Your task to perform on an android device: What's on my calendar today? Image 0: 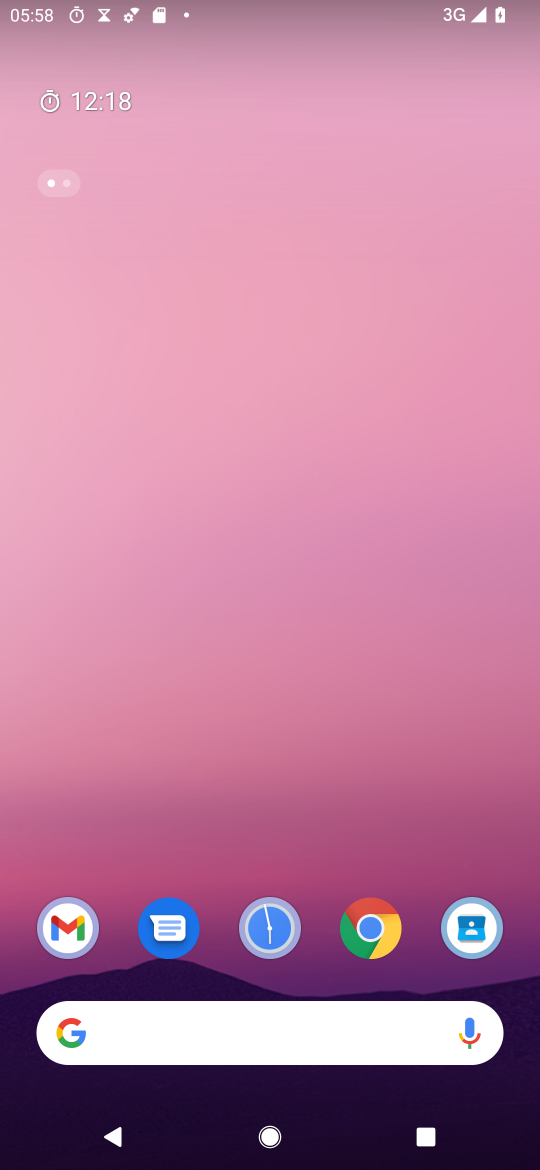
Step 0: drag from (282, 979) to (290, 260)
Your task to perform on an android device: What's on my calendar today? Image 1: 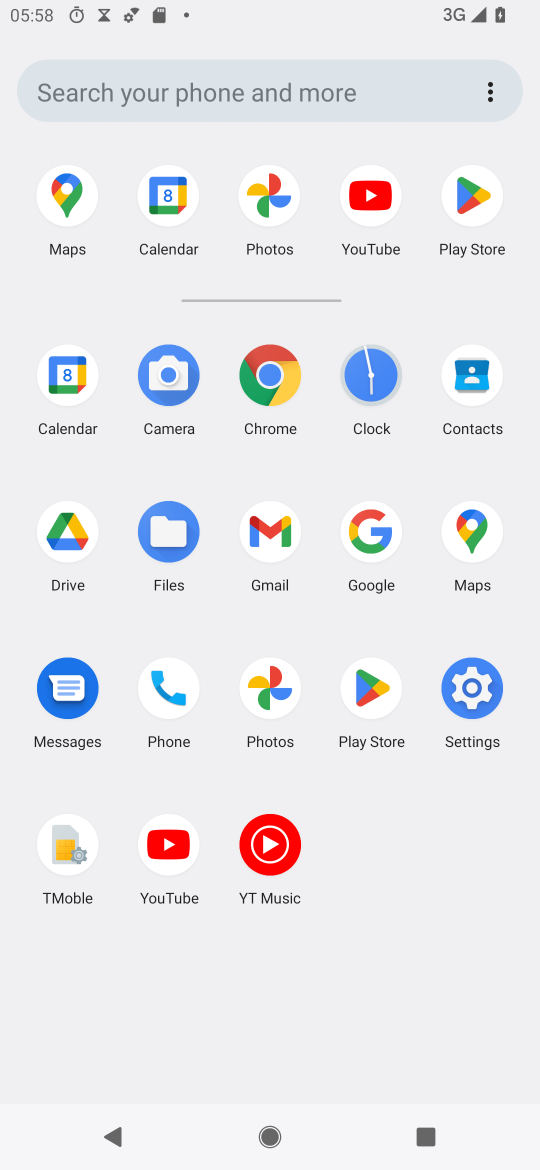
Step 1: click (41, 378)
Your task to perform on an android device: What's on my calendar today? Image 2: 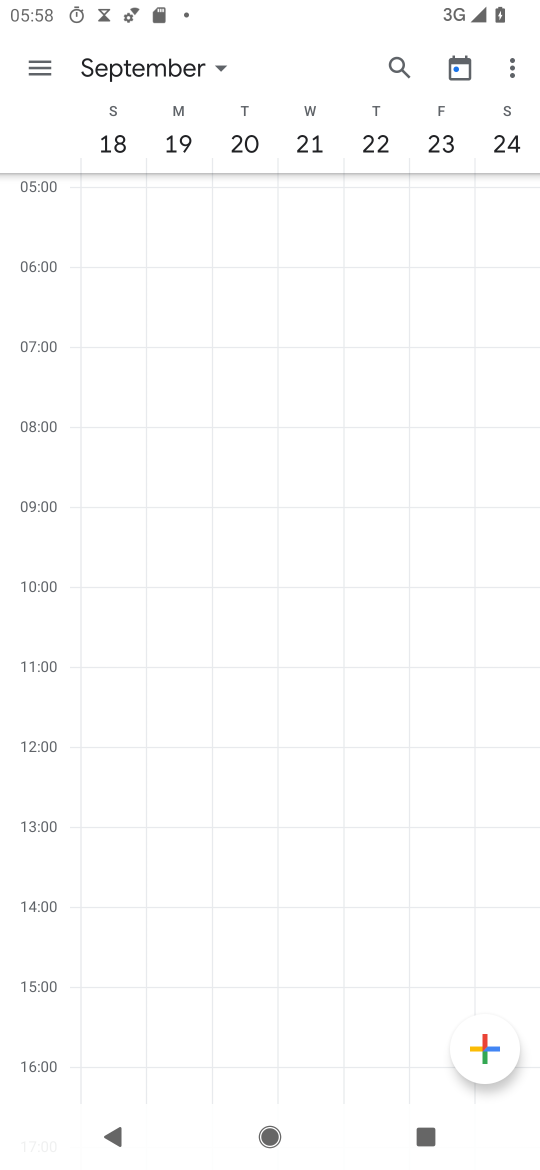
Step 2: click (110, 71)
Your task to perform on an android device: What's on my calendar today? Image 3: 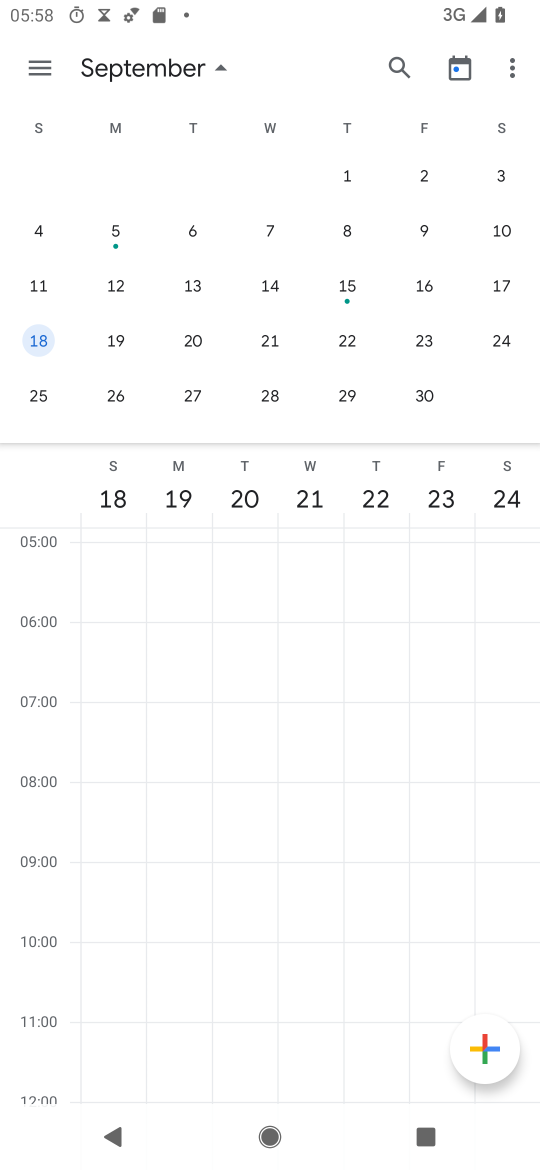
Step 3: drag from (95, 295) to (528, 352)
Your task to perform on an android device: What's on my calendar today? Image 4: 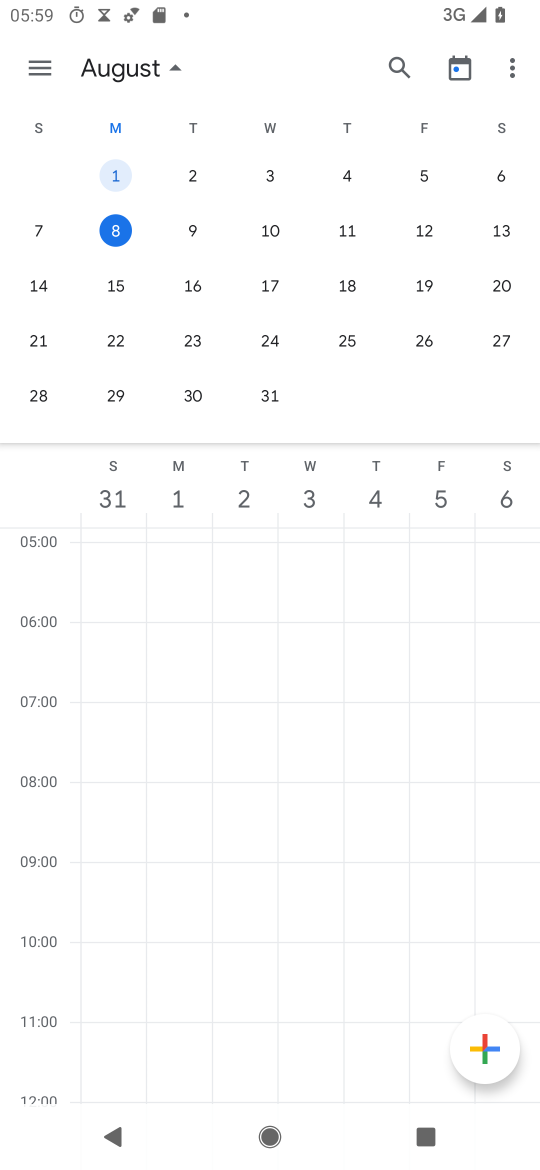
Step 4: click (36, 65)
Your task to perform on an android device: What's on my calendar today? Image 5: 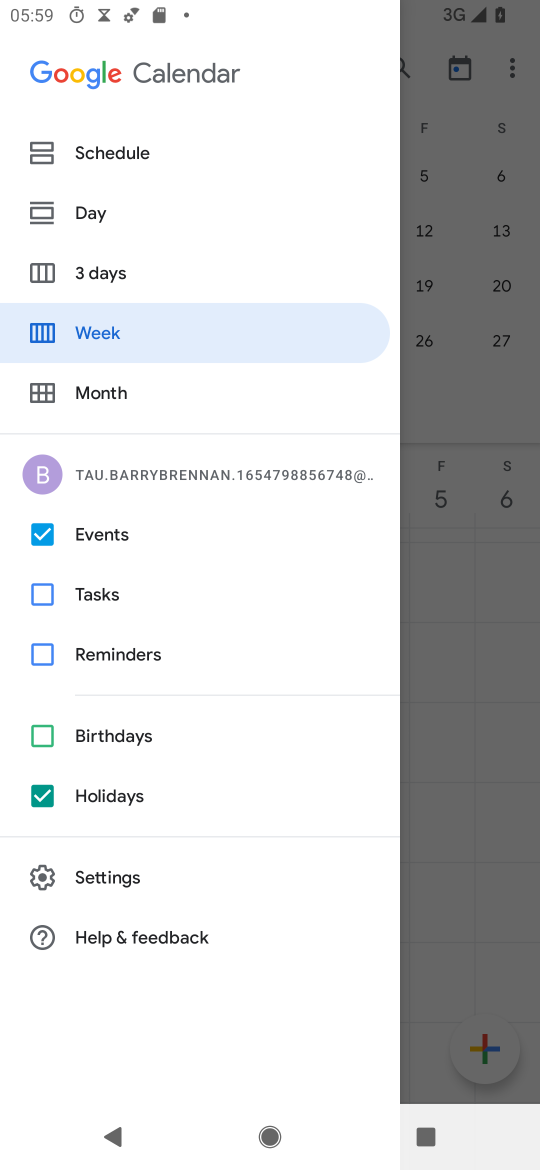
Step 5: click (86, 598)
Your task to perform on an android device: What's on my calendar today? Image 6: 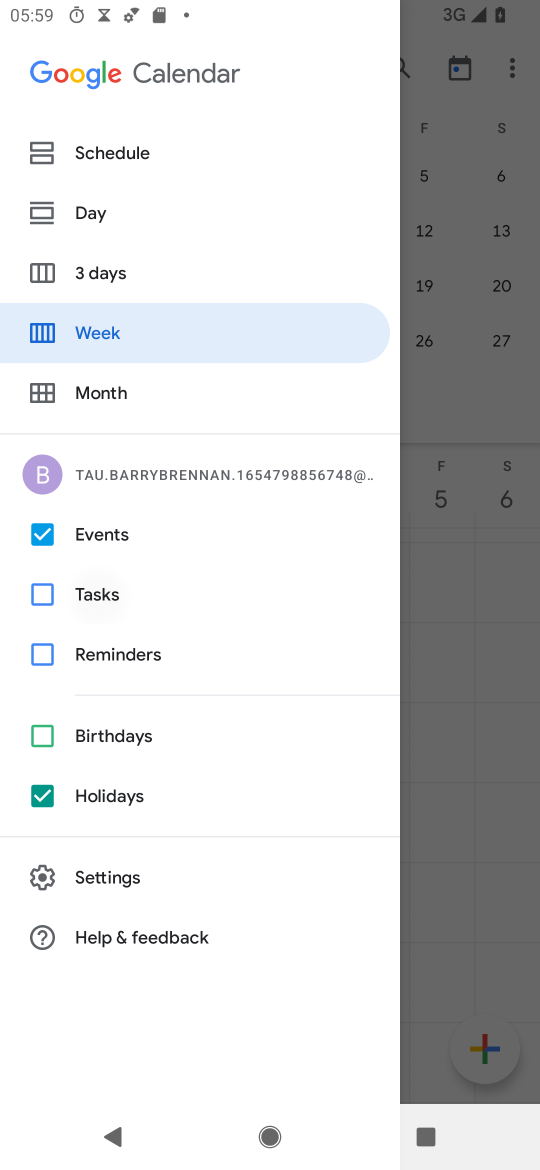
Step 6: click (94, 672)
Your task to perform on an android device: What's on my calendar today? Image 7: 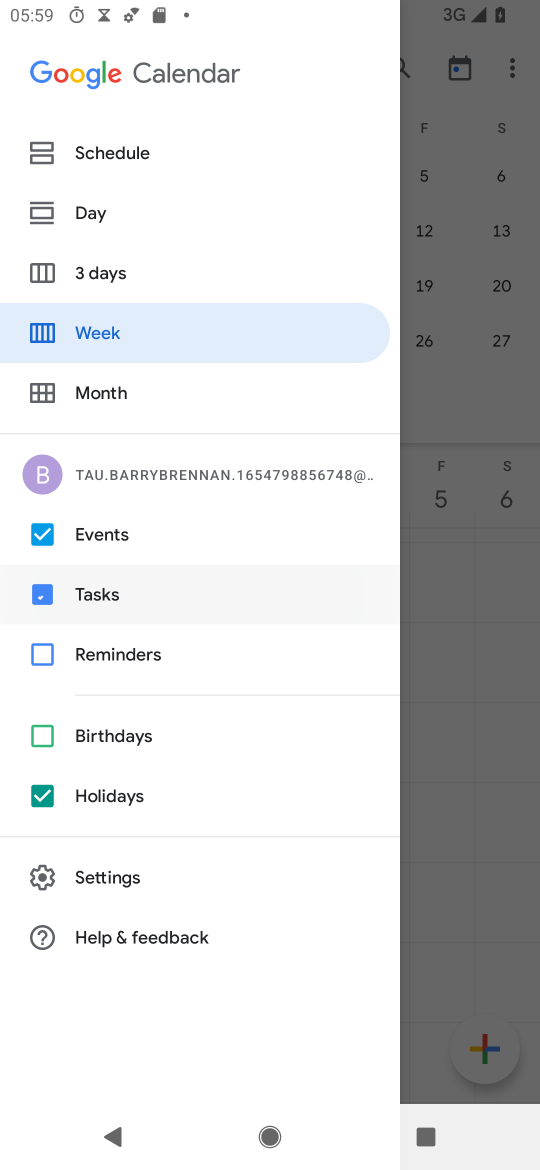
Step 7: click (86, 740)
Your task to perform on an android device: What's on my calendar today? Image 8: 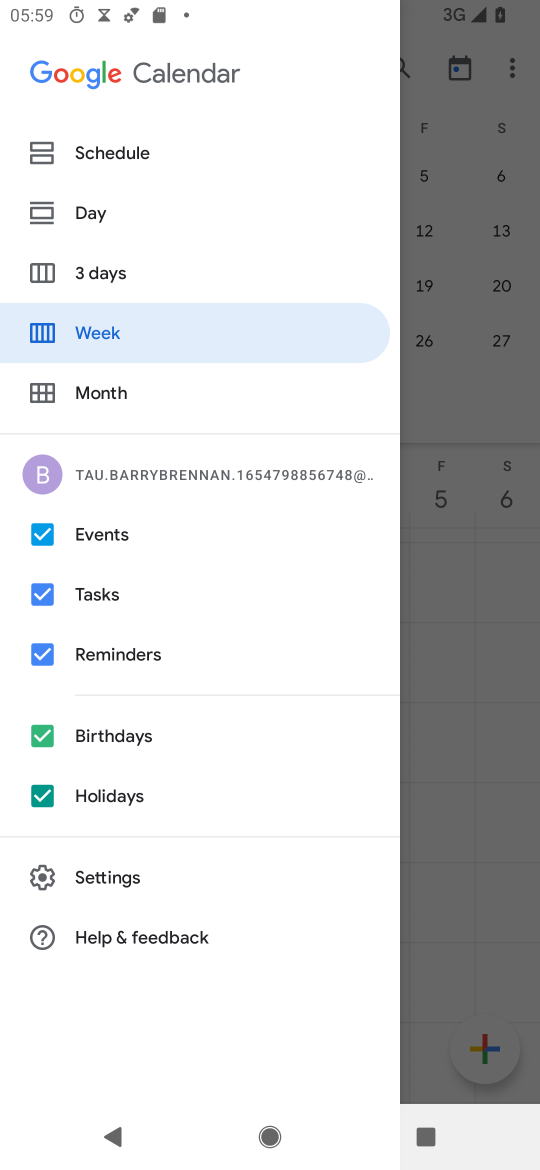
Step 8: click (100, 205)
Your task to perform on an android device: What's on my calendar today? Image 9: 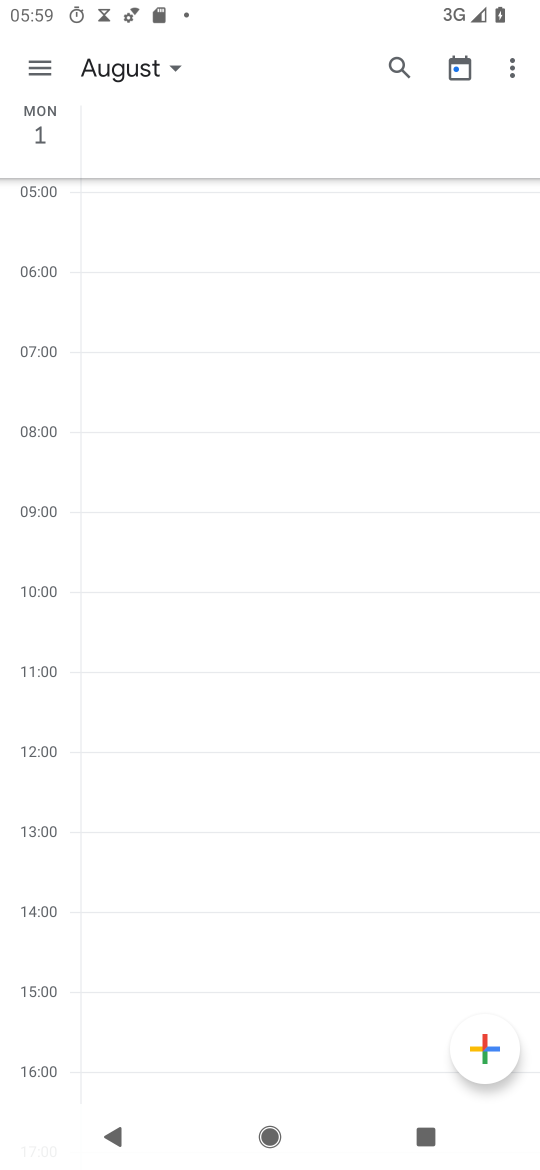
Step 9: task complete